Your task to perform on an android device: Open notification settings Image 0: 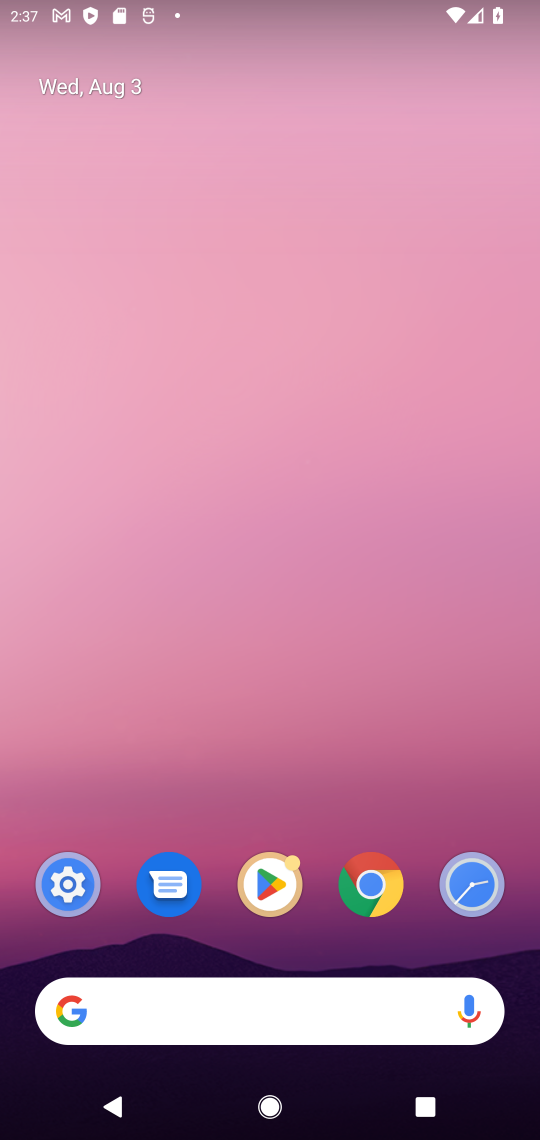
Step 0: click (83, 897)
Your task to perform on an android device: Open notification settings Image 1: 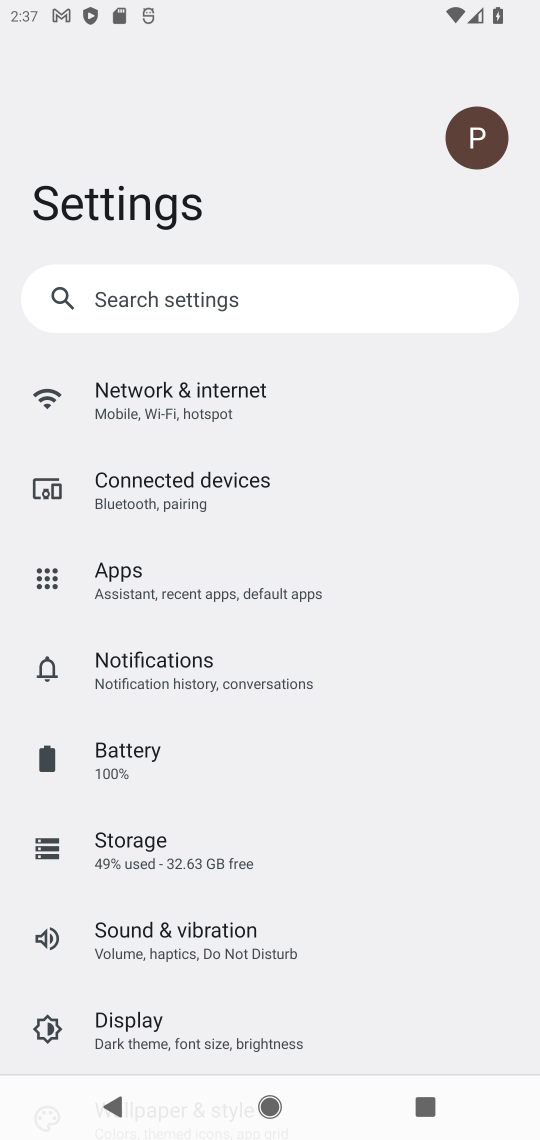
Step 1: click (275, 660)
Your task to perform on an android device: Open notification settings Image 2: 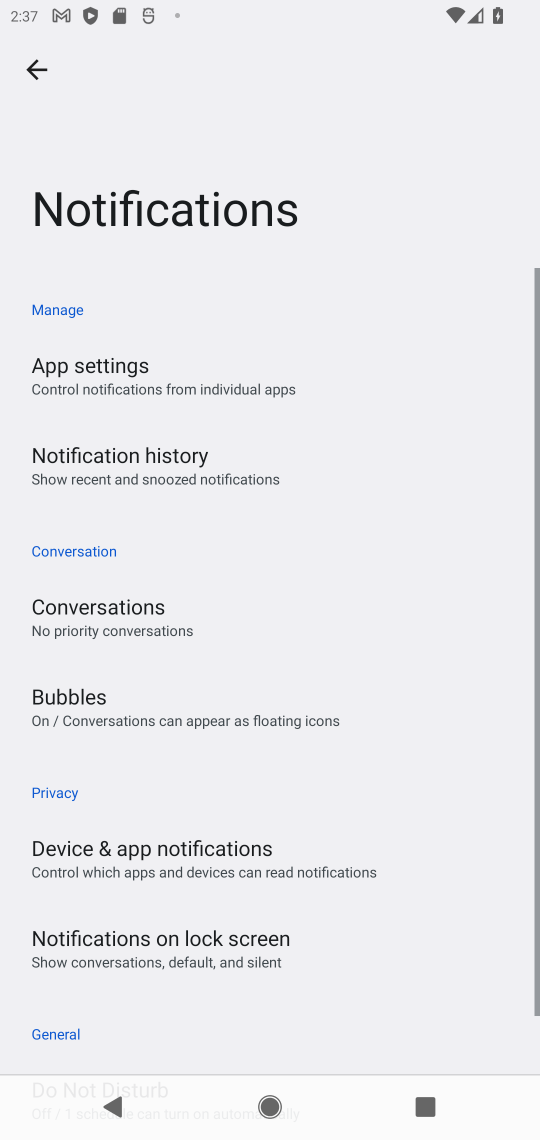
Step 2: task complete